Your task to perform on an android device: add a contact in the contacts app Image 0: 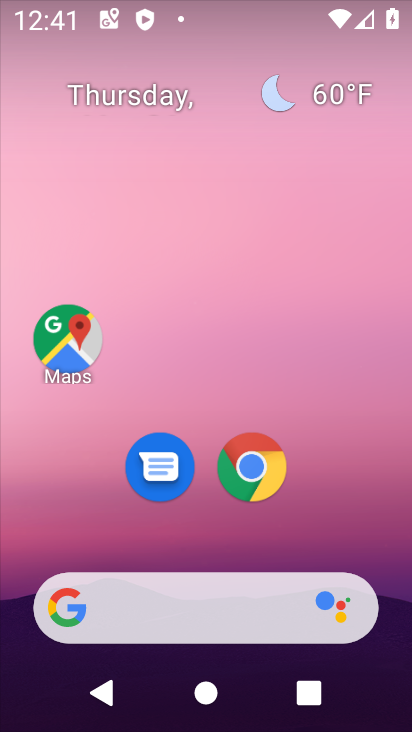
Step 0: drag from (199, 539) to (233, 110)
Your task to perform on an android device: add a contact in the contacts app Image 1: 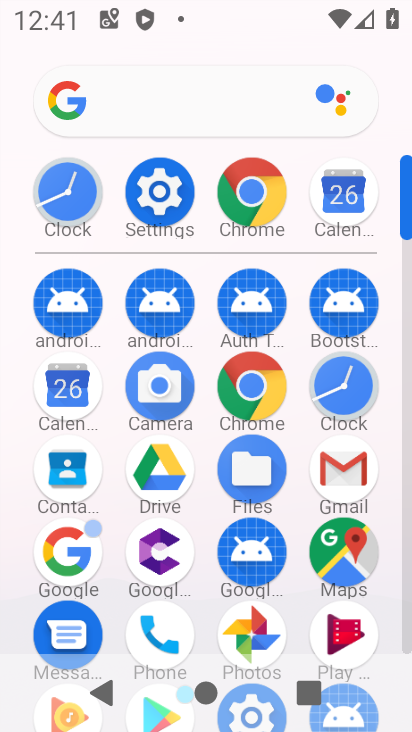
Step 1: click (50, 491)
Your task to perform on an android device: add a contact in the contacts app Image 2: 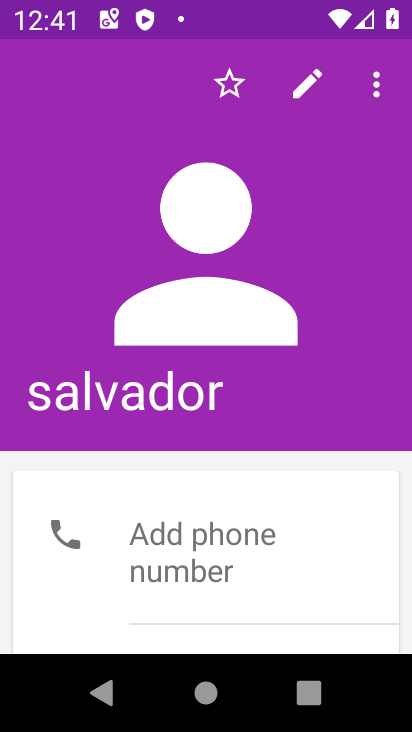
Step 2: press back button
Your task to perform on an android device: add a contact in the contacts app Image 3: 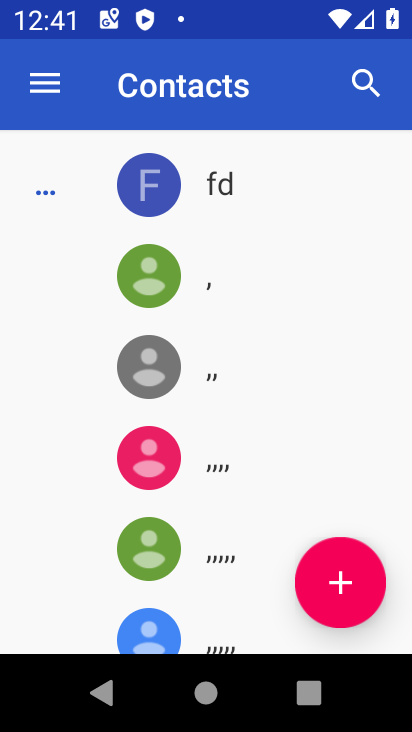
Step 3: click (351, 594)
Your task to perform on an android device: add a contact in the contacts app Image 4: 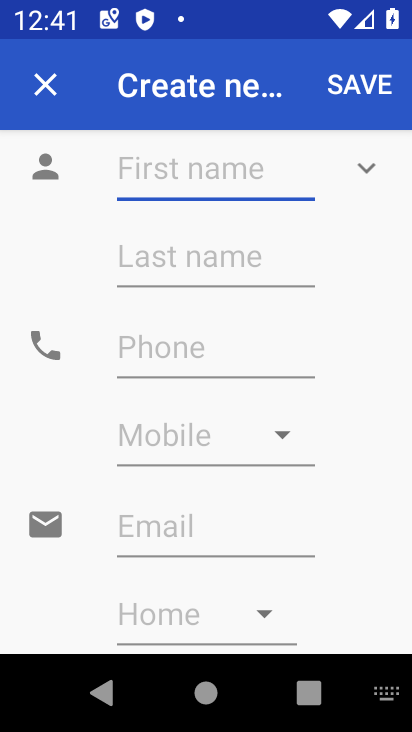
Step 4: type "fasher"
Your task to perform on an android device: add a contact in the contacts app Image 5: 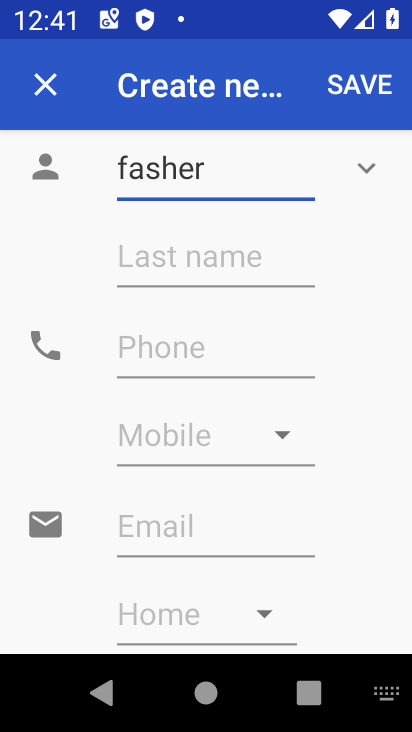
Step 5: click (359, 81)
Your task to perform on an android device: add a contact in the contacts app Image 6: 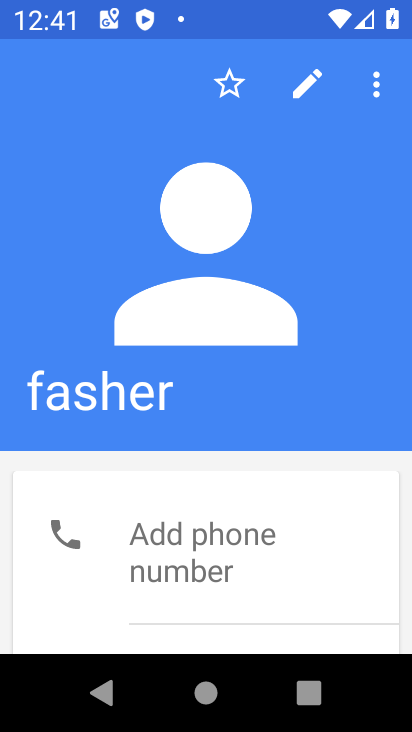
Step 6: task complete